Your task to perform on an android device: Open display settings Image 0: 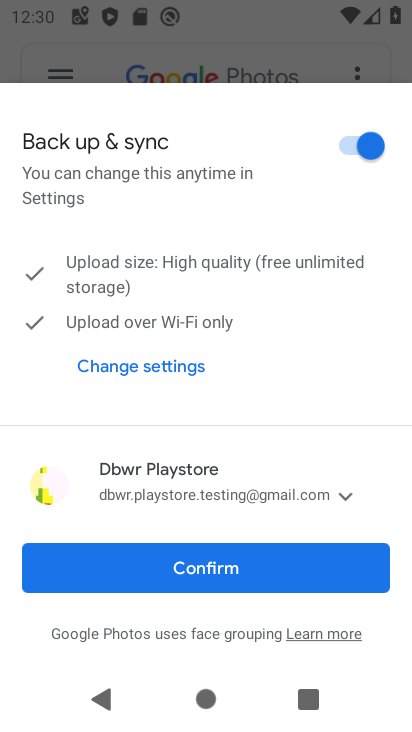
Step 0: press home button
Your task to perform on an android device: Open display settings Image 1: 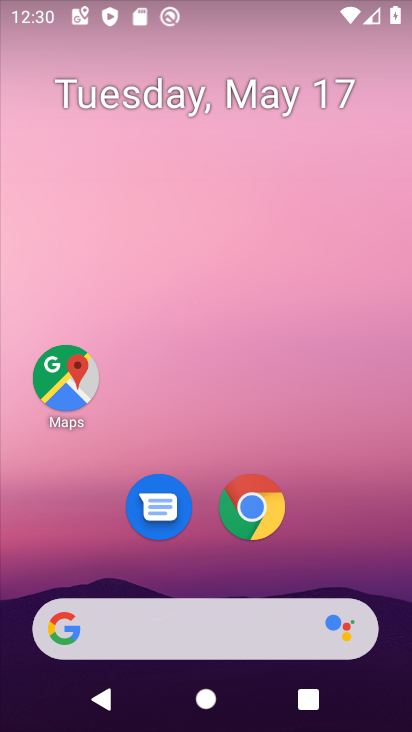
Step 1: drag from (362, 588) to (298, 30)
Your task to perform on an android device: Open display settings Image 2: 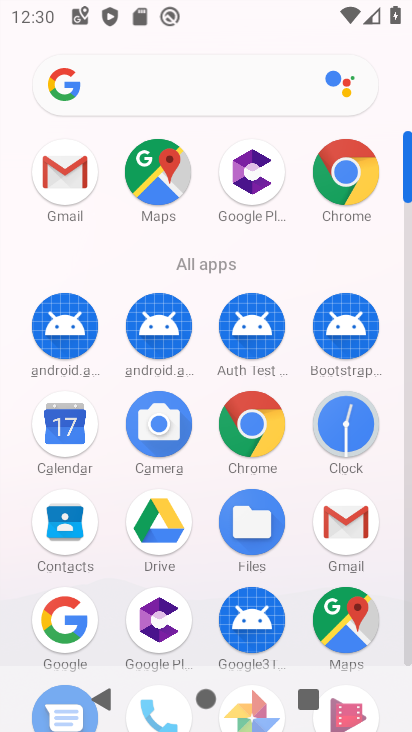
Step 2: click (408, 664)
Your task to perform on an android device: Open display settings Image 3: 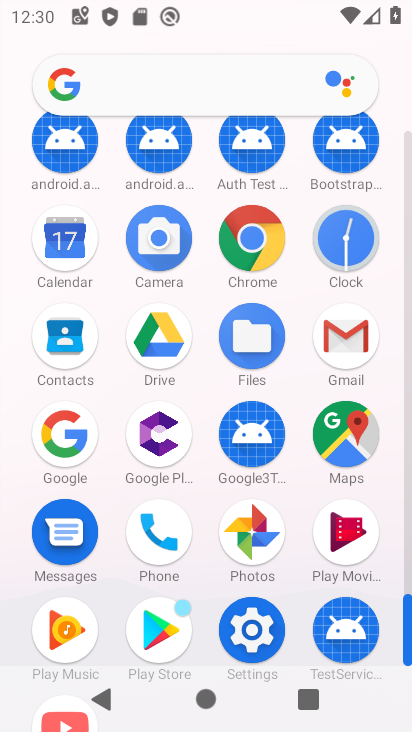
Step 3: click (256, 633)
Your task to perform on an android device: Open display settings Image 4: 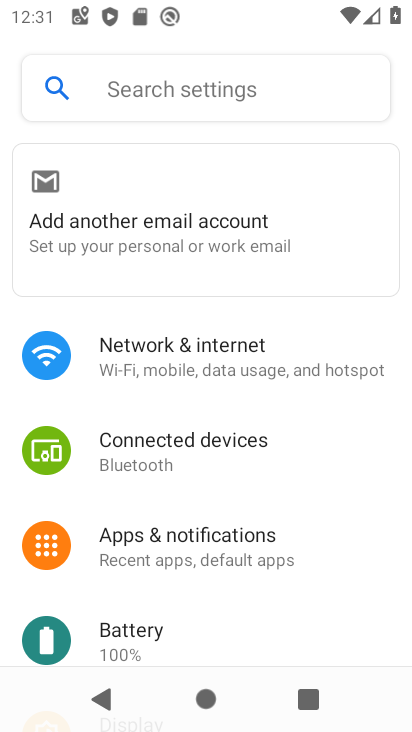
Step 4: drag from (256, 633) to (202, 263)
Your task to perform on an android device: Open display settings Image 5: 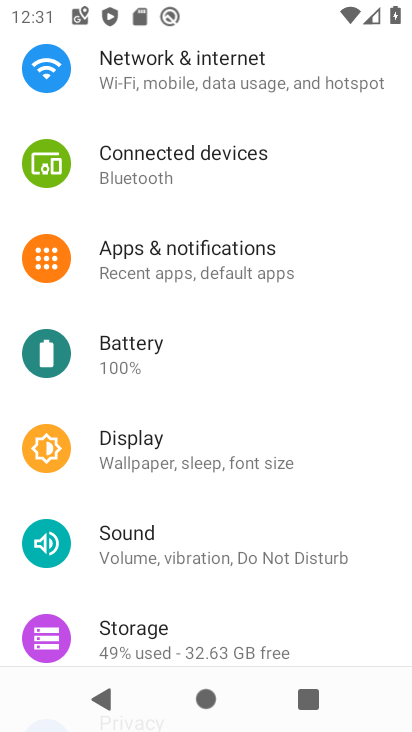
Step 5: click (244, 454)
Your task to perform on an android device: Open display settings Image 6: 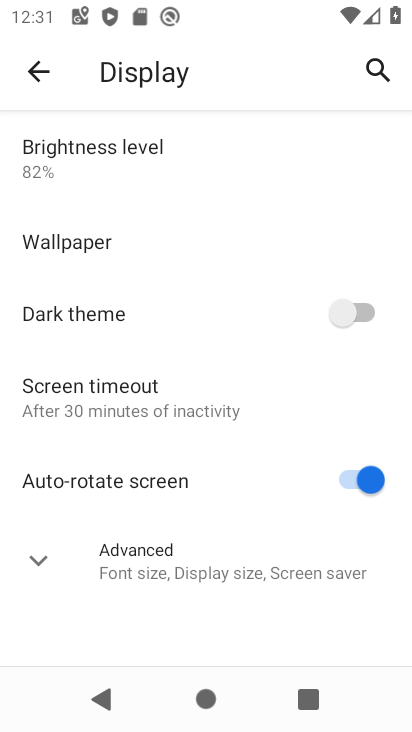
Step 6: task complete